Your task to perform on an android device: Open display settings Image 0: 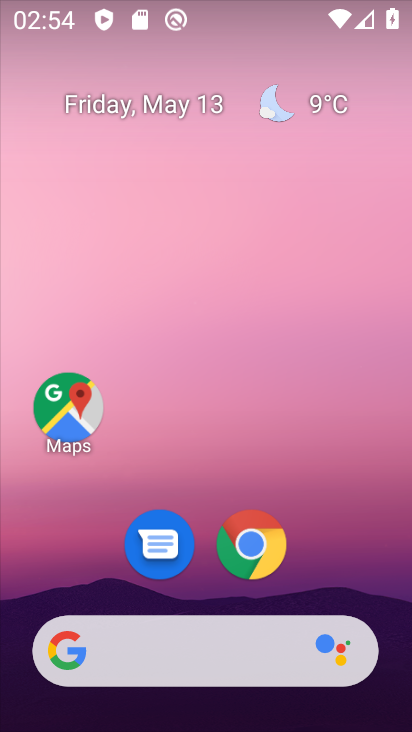
Step 0: drag from (331, 535) to (325, 451)
Your task to perform on an android device: Open display settings Image 1: 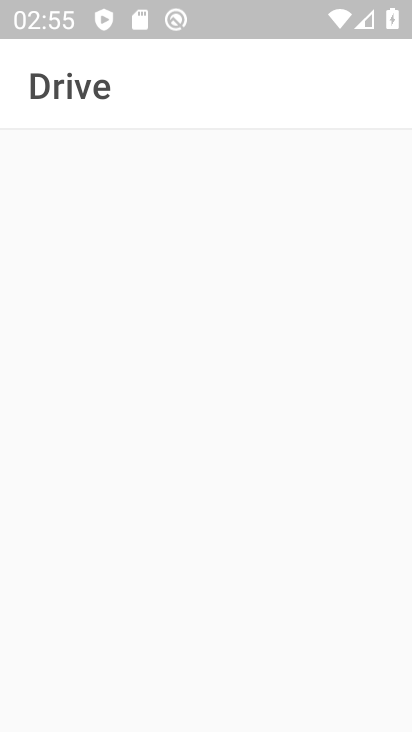
Step 1: press back button
Your task to perform on an android device: Open display settings Image 2: 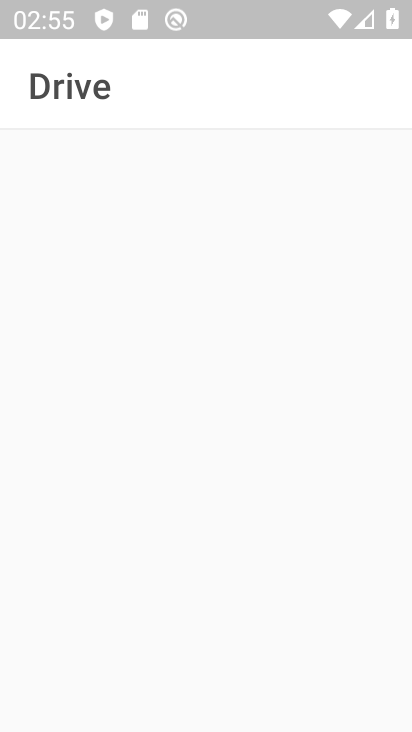
Step 2: press back button
Your task to perform on an android device: Open display settings Image 3: 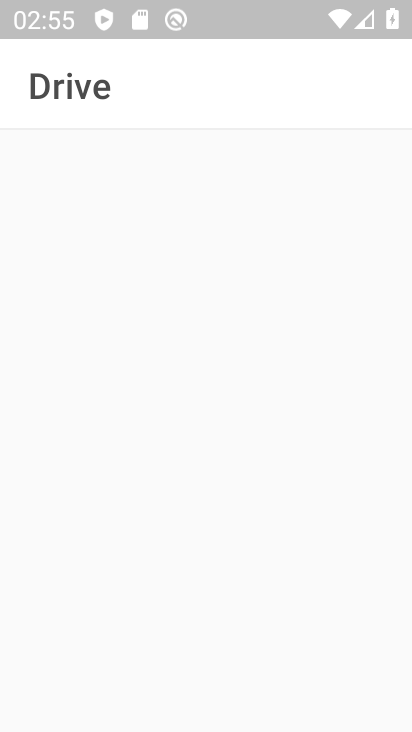
Step 3: press home button
Your task to perform on an android device: Open display settings Image 4: 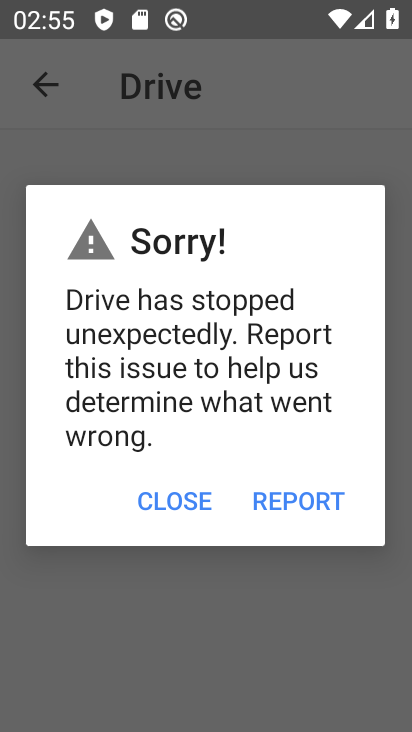
Step 4: press back button
Your task to perform on an android device: Open display settings Image 5: 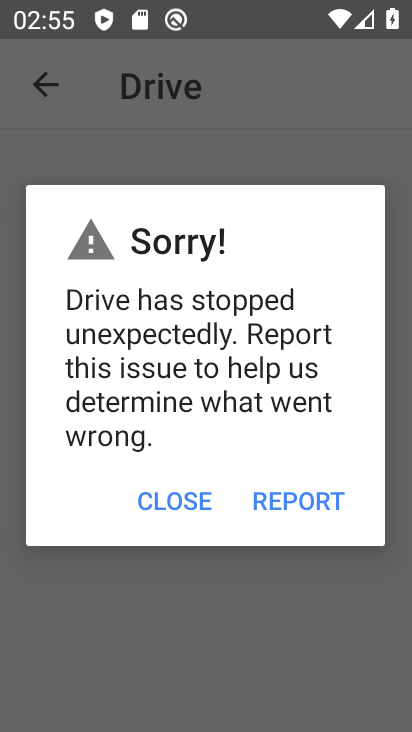
Step 5: press home button
Your task to perform on an android device: Open display settings Image 6: 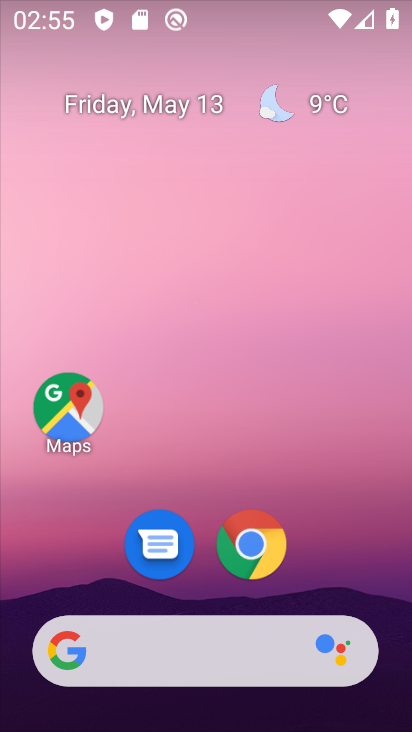
Step 6: press home button
Your task to perform on an android device: Open display settings Image 7: 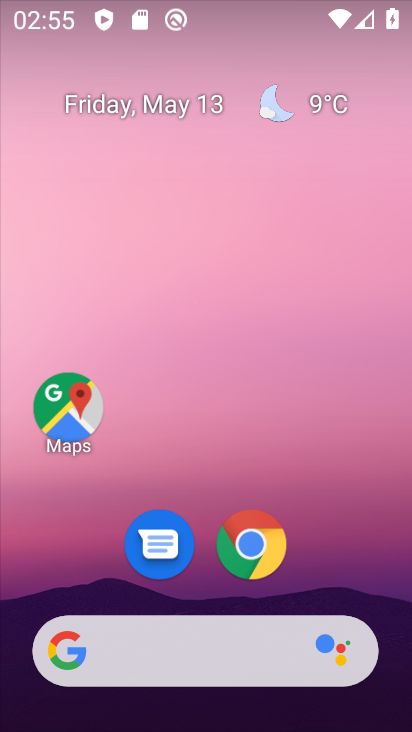
Step 7: drag from (302, 565) to (219, 0)
Your task to perform on an android device: Open display settings Image 8: 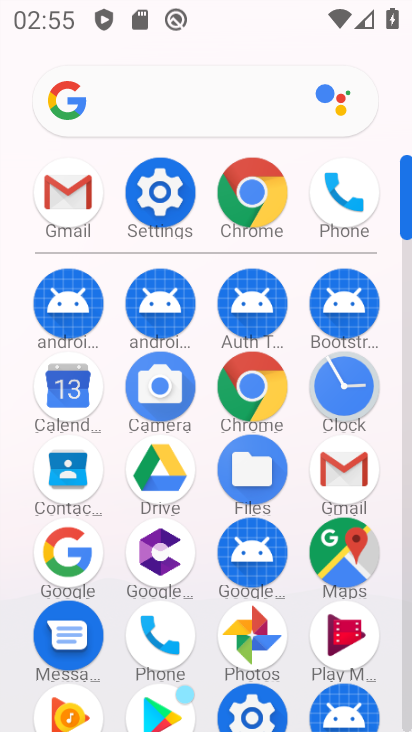
Step 8: click (160, 187)
Your task to perform on an android device: Open display settings Image 9: 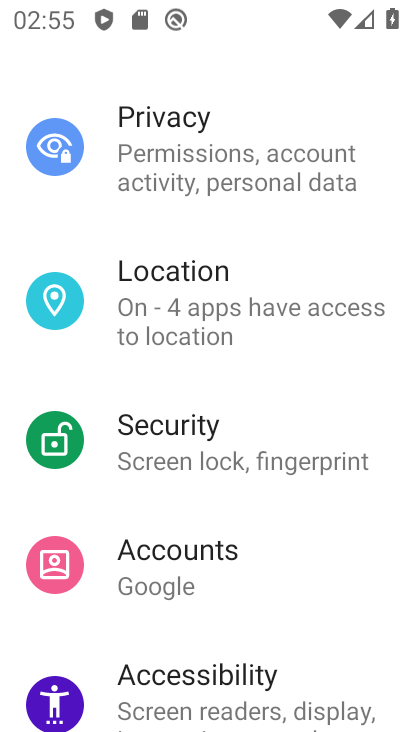
Step 9: drag from (228, 195) to (267, 566)
Your task to perform on an android device: Open display settings Image 10: 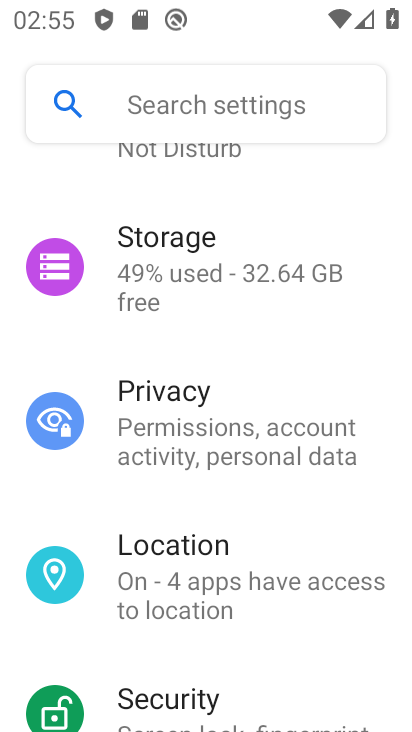
Step 10: drag from (247, 251) to (278, 632)
Your task to perform on an android device: Open display settings Image 11: 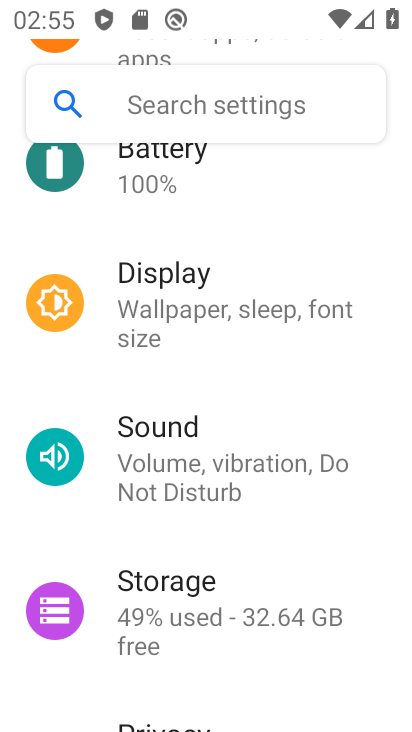
Step 11: click (218, 283)
Your task to perform on an android device: Open display settings Image 12: 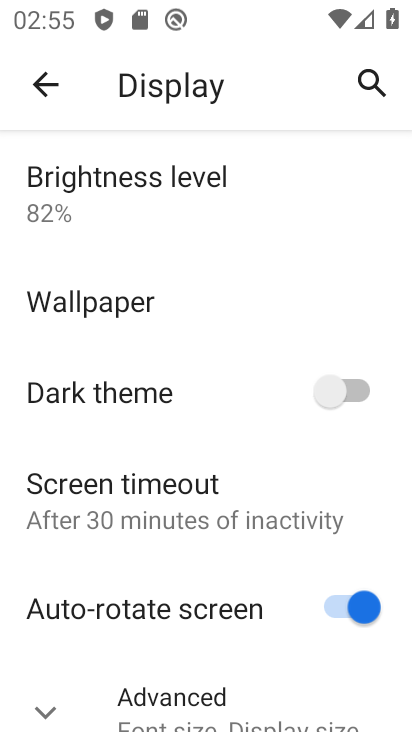
Step 12: drag from (166, 594) to (191, 273)
Your task to perform on an android device: Open display settings Image 13: 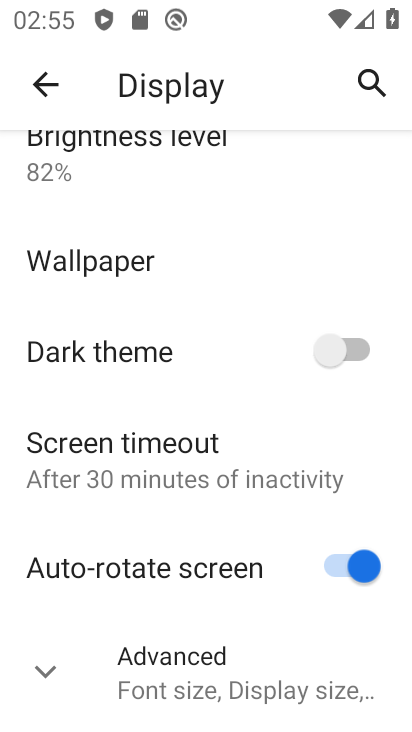
Step 13: click (41, 677)
Your task to perform on an android device: Open display settings Image 14: 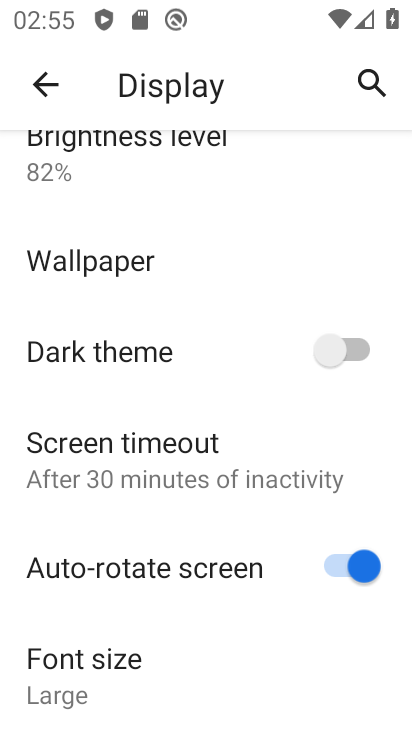
Step 14: task complete